Your task to perform on an android device: Search for "alienware aurora" on walmart, select the first entry, and add it to the cart. Image 0: 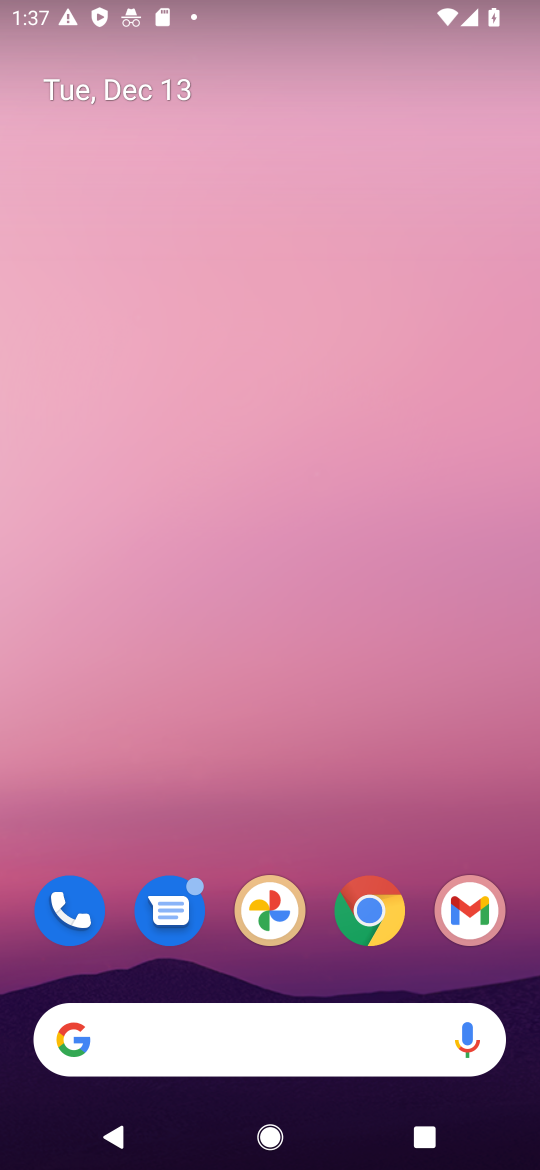
Step 0: click (379, 911)
Your task to perform on an android device: Search for "alienware aurora" on walmart, select the first entry, and add it to the cart. Image 1: 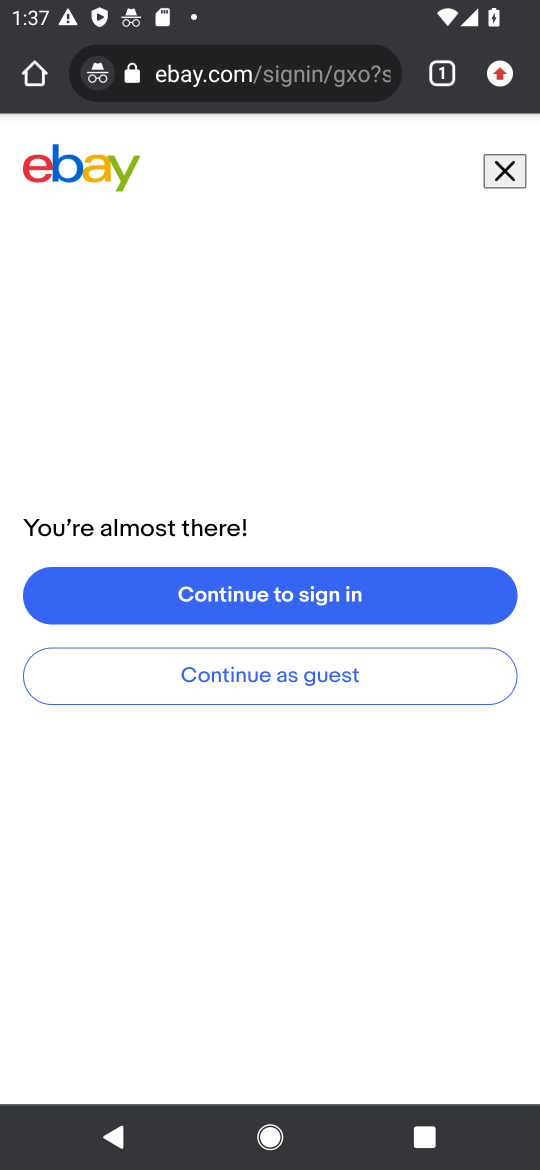
Step 1: click (323, 75)
Your task to perform on an android device: Search for "alienware aurora" on walmart, select the first entry, and add it to the cart. Image 2: 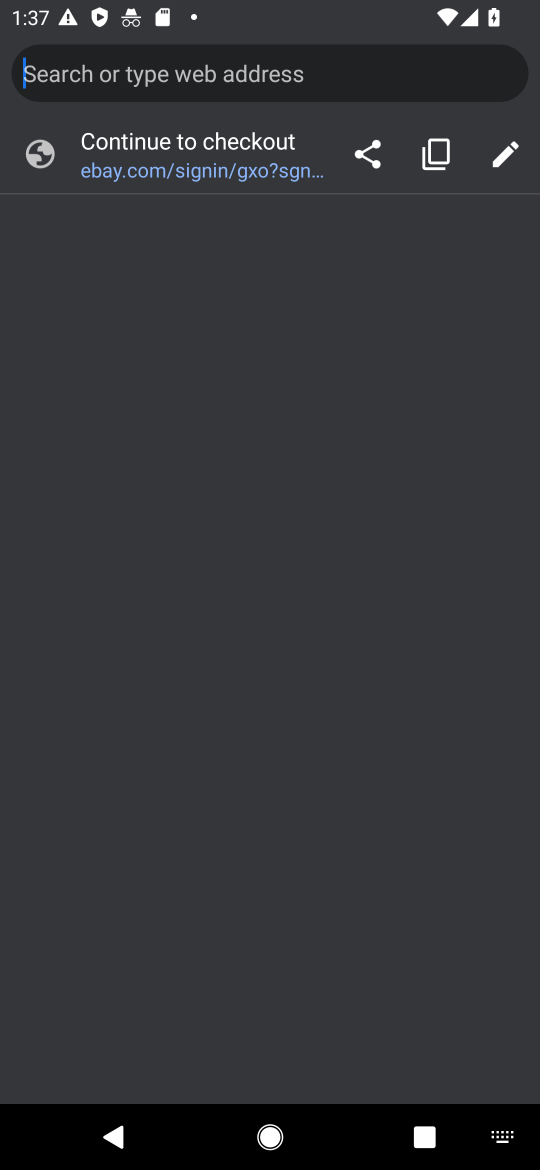
Step 2: type "WALMART"
Your task to perform on an android device: Search for "alienware aurora" on walmart, select the first entry, and add it to the cart. Image 3: 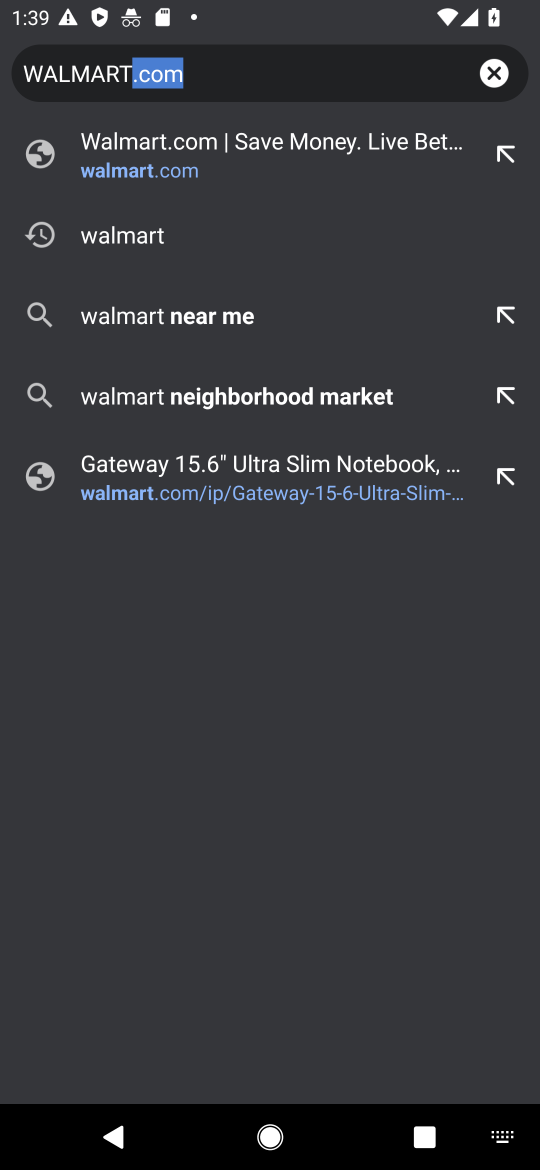
Step 3: click (215, 168)
Your task to perform on an android device: Search for "alienware aurora" on walmart, select the first entry, and add it to the cart. Image 4: 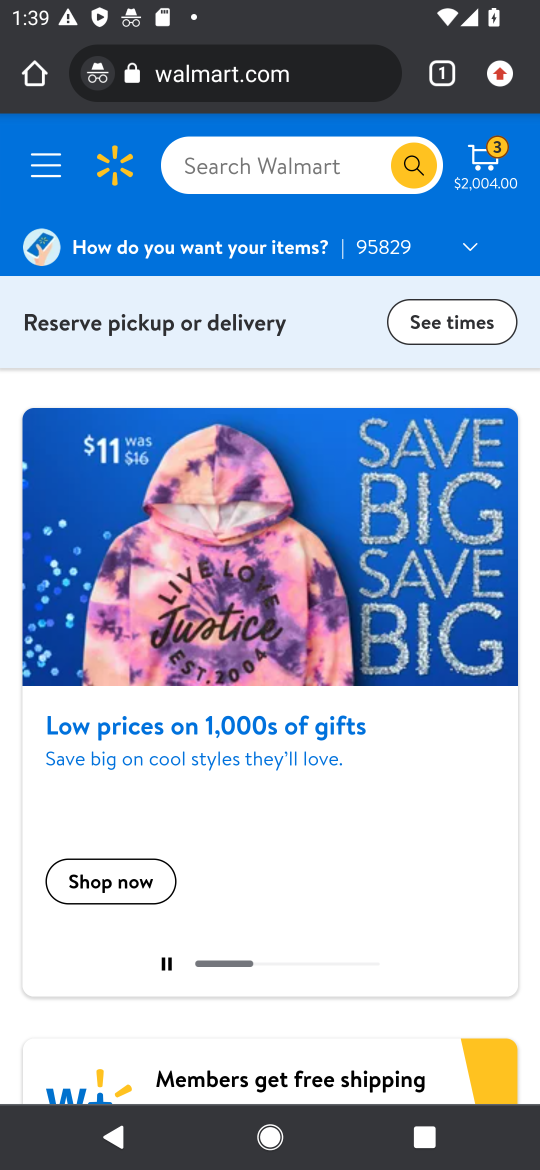
Step 4: click (304, 149)
Your task to perform on an android device: Search for "alienware aurora" on walmart, select the first entry, and add it to the cart. Image 5: 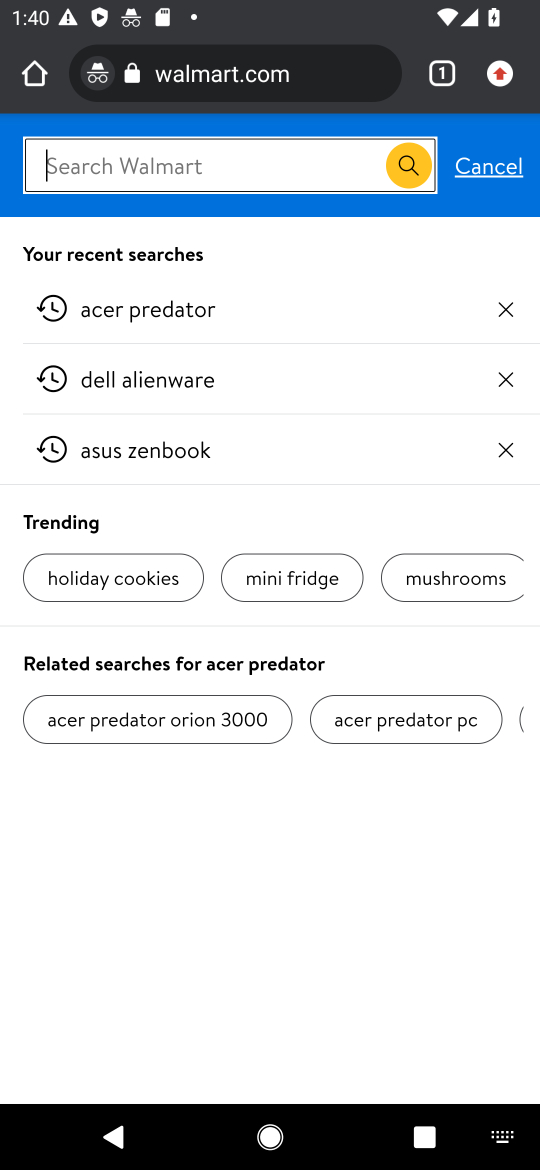
Step 5: type "ALIENWARE AURORA"
Your task to perform on an android device: Search for "alienware aurora" on walmart, select the first entry, and add it to the cart. Image 6: 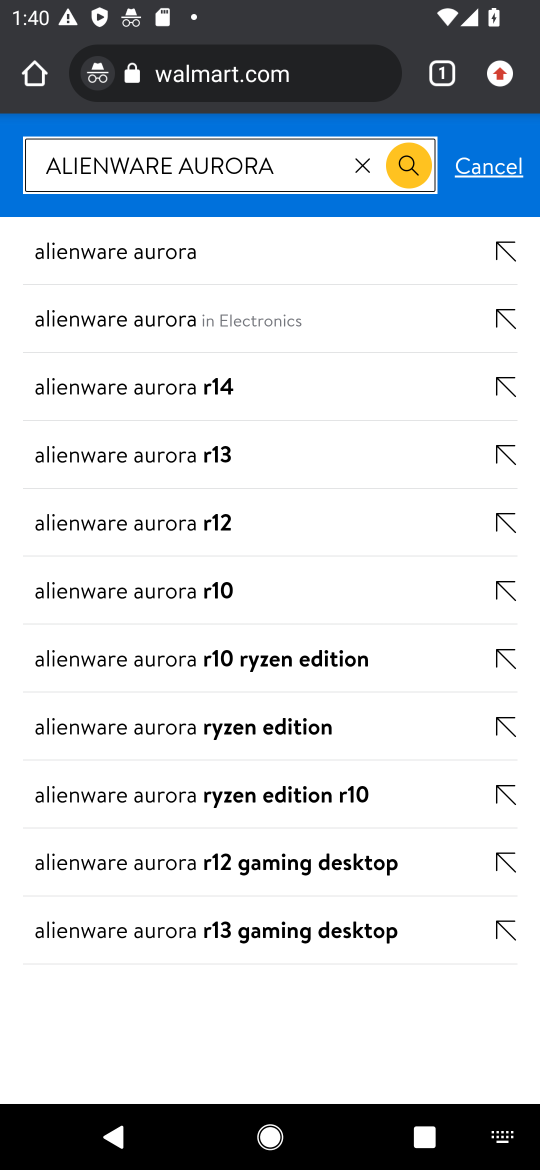
Step 6: click (142, 253)
Your task to perform on an android device: Search for "alienware aurora" on walmart, select the first entry, and add it to the cart. Image 7: 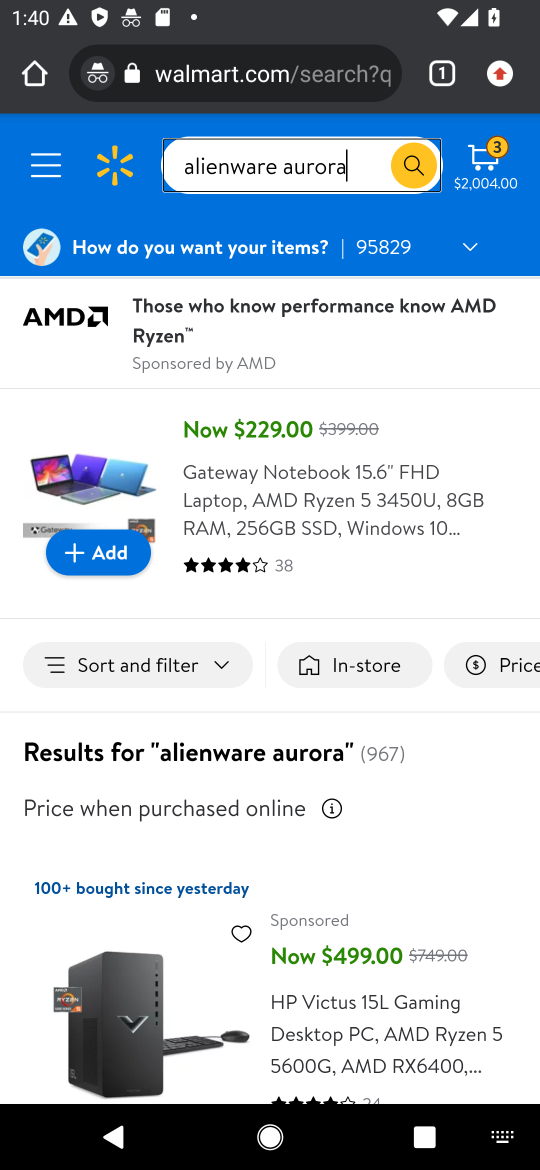
Step 7: click (71, 557)
Your task to perform on an android device: Search for "alienware aurora" on walmart, select the first entry, and add it to the cart. Image 8: 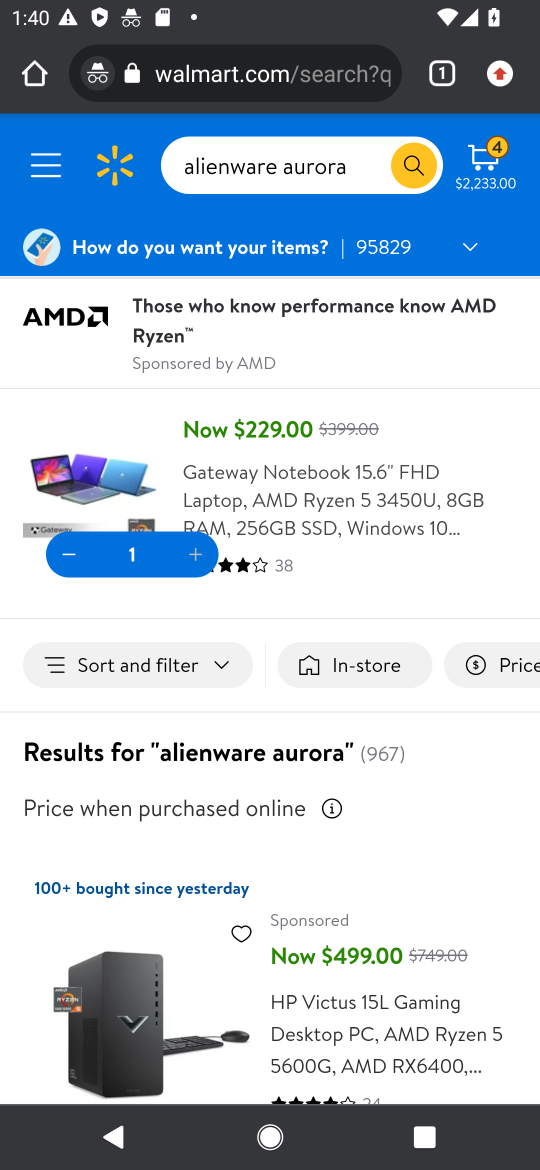
Step 8: task complete